Your task to perform on an android device: Open Google Image 0: 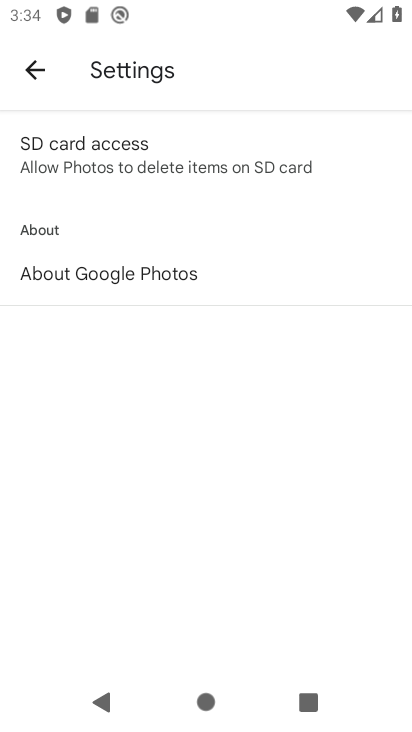
Step 0: drag from (392, 590) to (388, 507)
Your task to perform on an android device: Open Google Image 1: 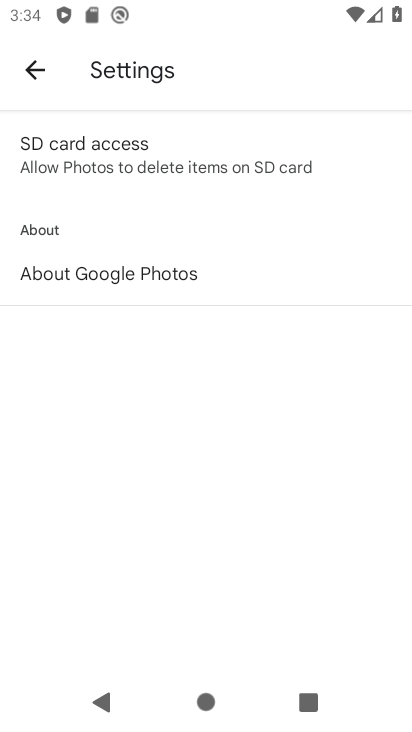
Step 1: press home button
Your task to perform on an android device: Open Google Image 2: 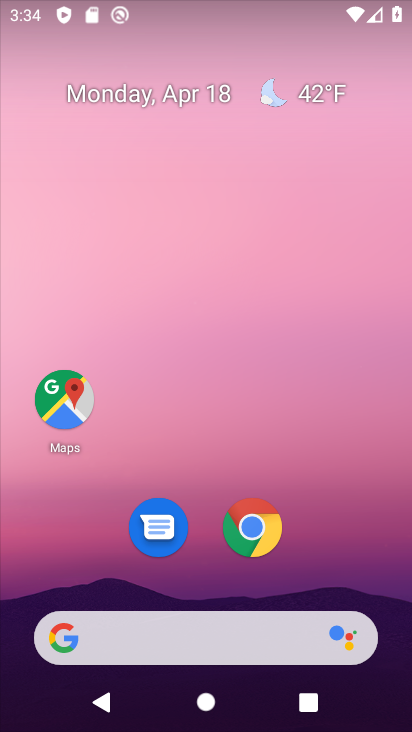
Step 2: click (203, 628)
Your task to perform on an android device: Open Google Image 3: 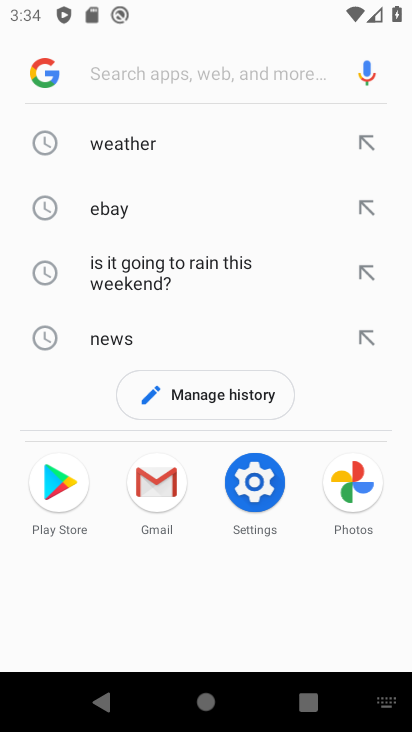
Step 3: click (44, 71)
Your task to perform on an android device: Open Google Image 4: 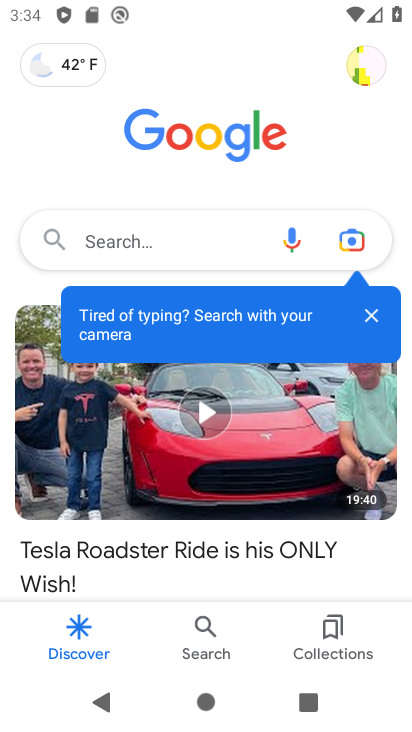
Step 4: task complete